Your task to perform on an android device: turn off translation in the chrome app Image 0: 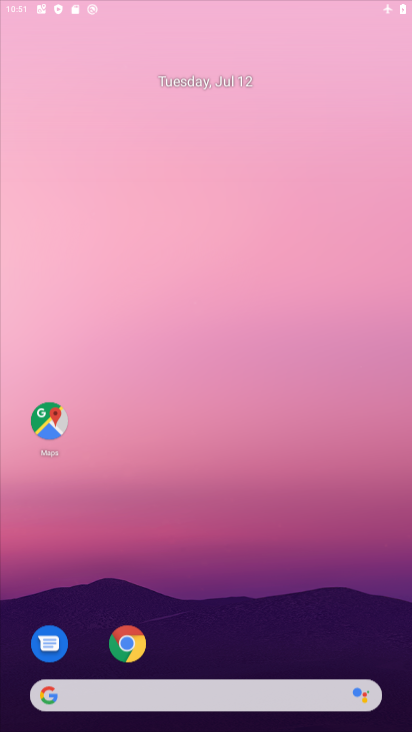
Step 0: click (327, 7)
Your task to perform on an android device: turn off translation in the chrome app Image 1: 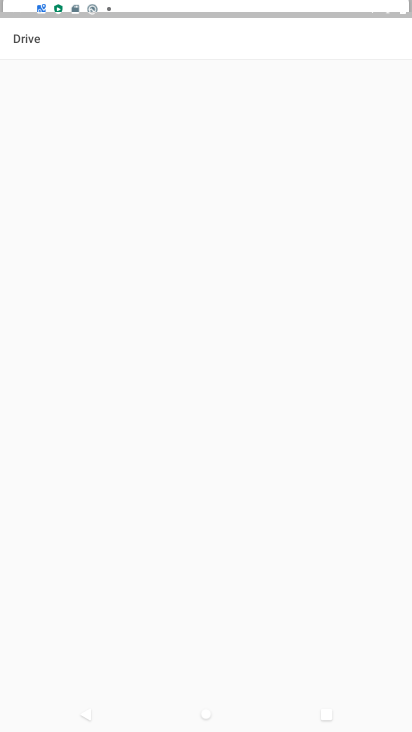
Step 1: drag from (271, 620) to (313, 221)
Your task to perform on an android device: turn off translation in the chrome app Image 2: 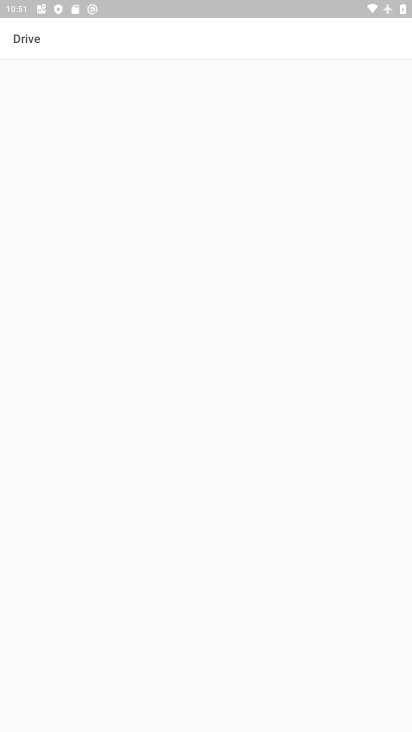
Step 2: press home button
Your task to perform on an android device: turn off translation in the chrome app Image 3: 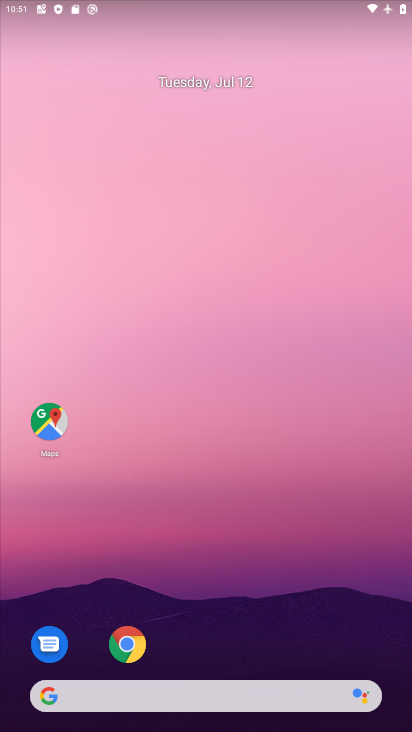
Step 3: drag from (292, 590) to (354, 139)
Your task to perform on an android device: turn off translation in the chrome app Image 4: 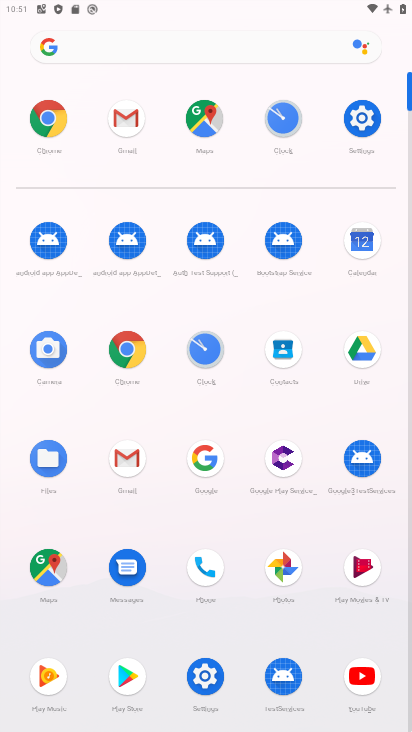
Step 4: click (40, 115)
Your task to perform on an android device: turn off translation in the chrome app Image 5: 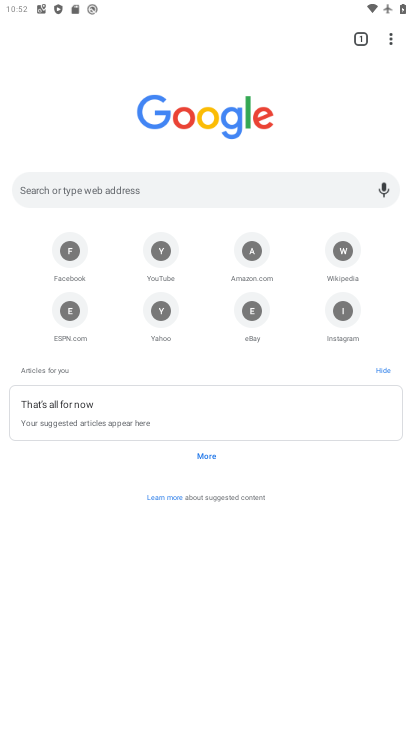
Step 5: drag from (387, 45) to (246, 329)
Your task to perform on an android device: turn off translation in the chrome app Image 6: 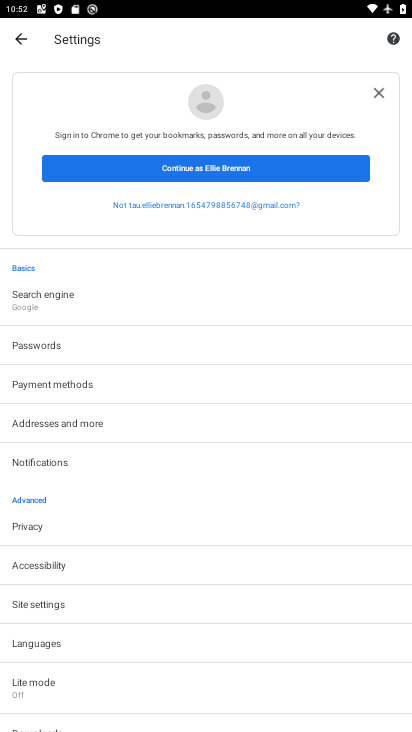
Step 6: click (85, 645)
Your task to perform on an android device: turn off translation in the chrome app Image 7: 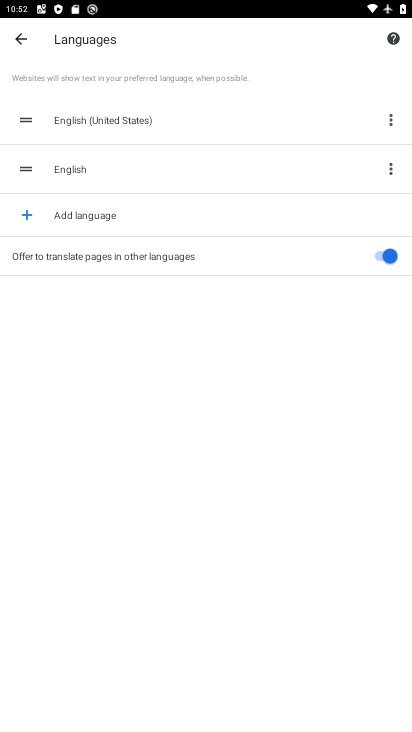
Step 7: click (382, 250)
Your task to perform on an android device: turn off translation in the chrome app Image 8: 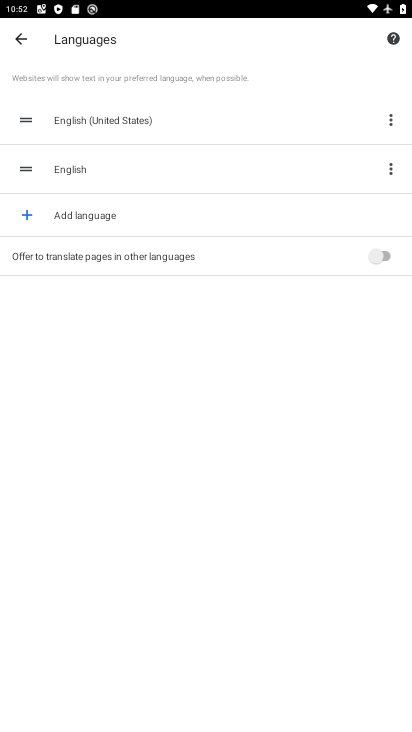
Step 8: task complete